Your task to perform on an android device: Set the phone to "Do not disturb". Image 0: 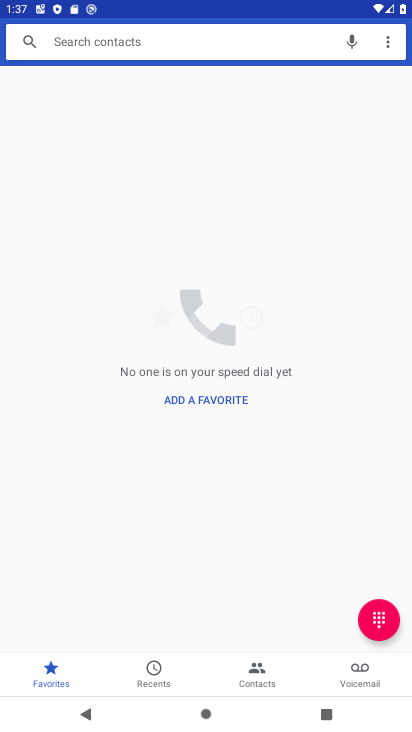
Step 0: press home button
Your task to perform on an android device: Set the phone to "Do not disturb". Image 1: 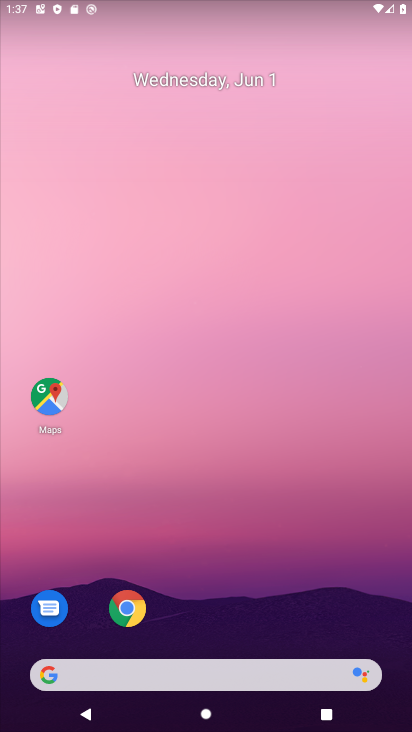
Step 1: drag from (174, 629) to (148, 86)
Your task to perform on an android device: Set the phone to "Do not disturb". Image 2: 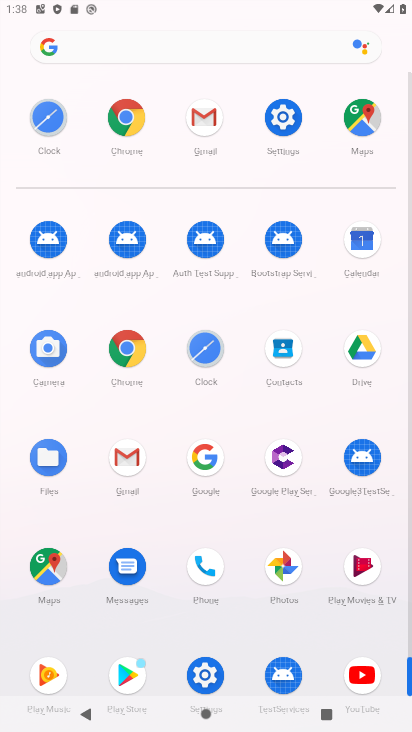
Step 2: click (270, 127)
Your task to perform on an android device: Set the phone to "Do not disturb". Image 3: 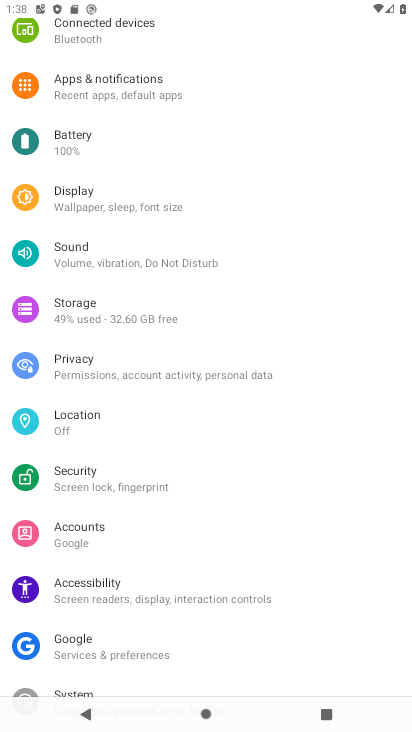
Step 3: drag from (89, 621) to (116, 366)
Your task to perform on an android device: Set the phone to "Do not disturb". Image 4: 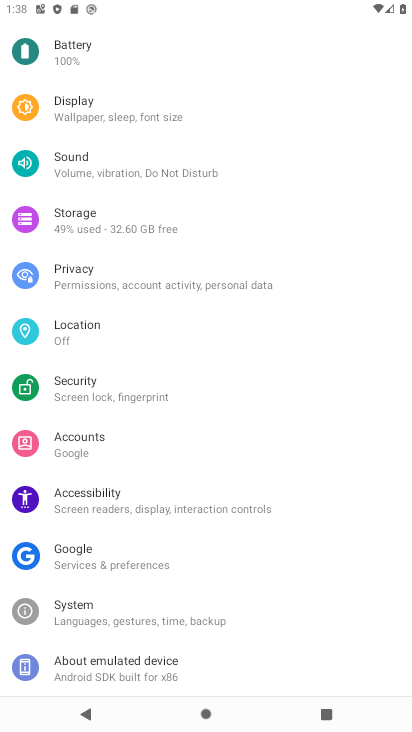
Step 4: click (74, 168)
Your task to perform on an android device: Set the phone to "Do not disturb". Image 5: 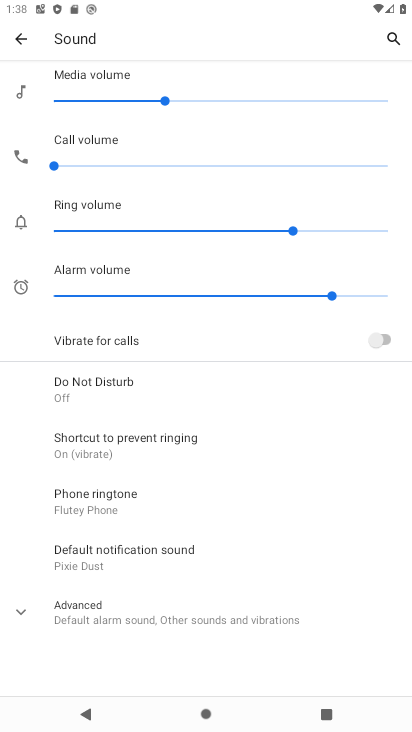
Step 5: click (89, 392)
Your task to perform on an android device: Set the phone to "Do not disturb". Image 6: 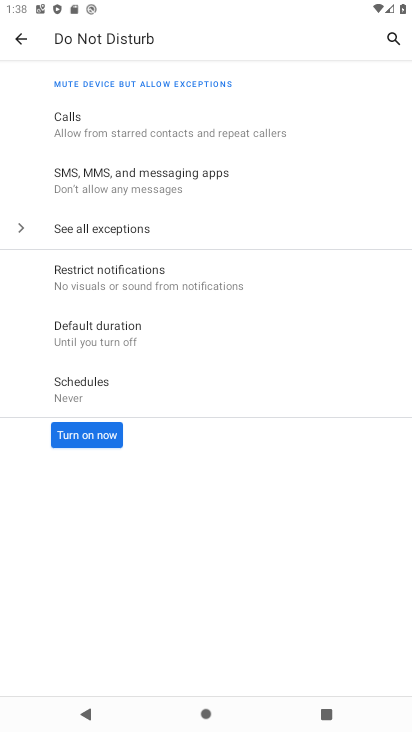
Step 6: click (73, 435)
Your task to perform on an android device: Set the phone to "Do not disturb". Image 7: 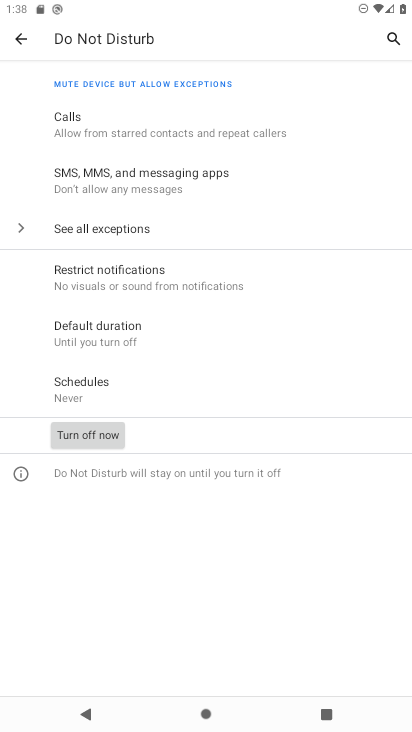
Step 7: task complete